Your task to perform on an android device: turn on translation in the chrome app Image 0: 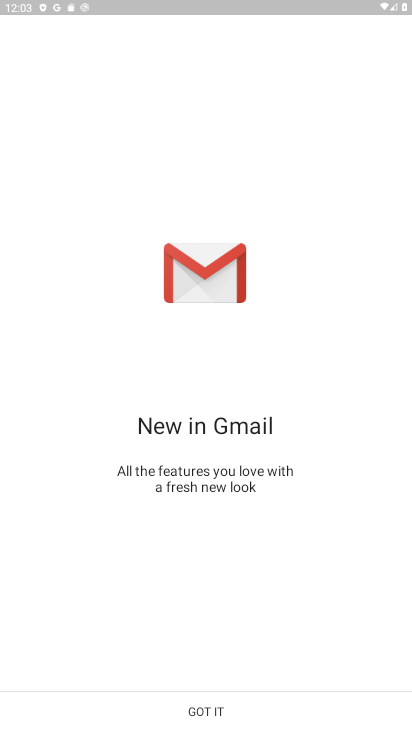
Step 0: press home button
Your task to perform on an android device: turn on translation in the chrome app Image 1: 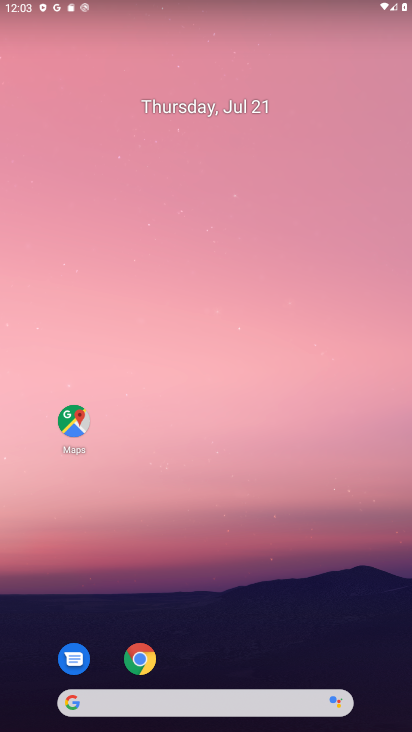
Step 1: click (136, 662)
Your task to perform on an android device: turn on translation in the chrome app Image 2: 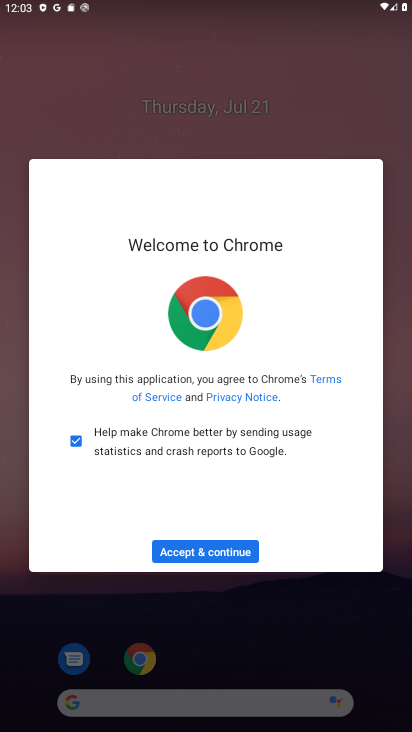
Step 2: click (226, 560)
Your task to perform on an android device: turn on translation in the chrome app Image 3: 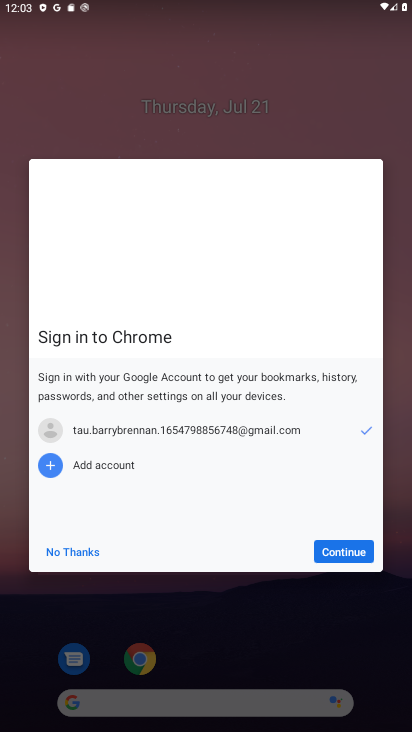
Step 3: click (328, 549)
Your task to perform on an android device: turn on translation in the chrome app Image 4: 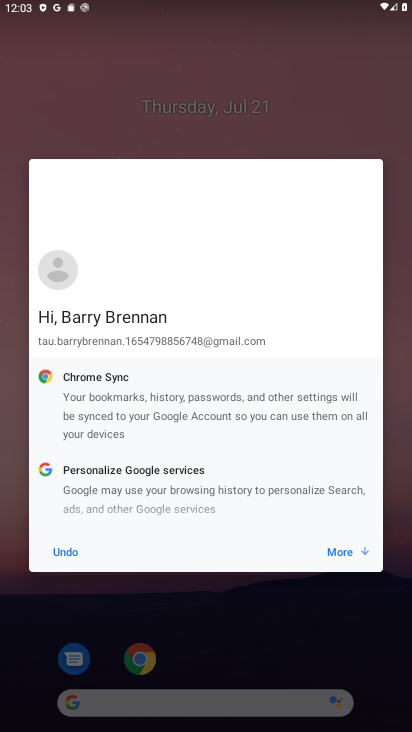
Step 4: click (328, 549)
Your task to perform on an android device: turn on translation in the chrome app Image 5: 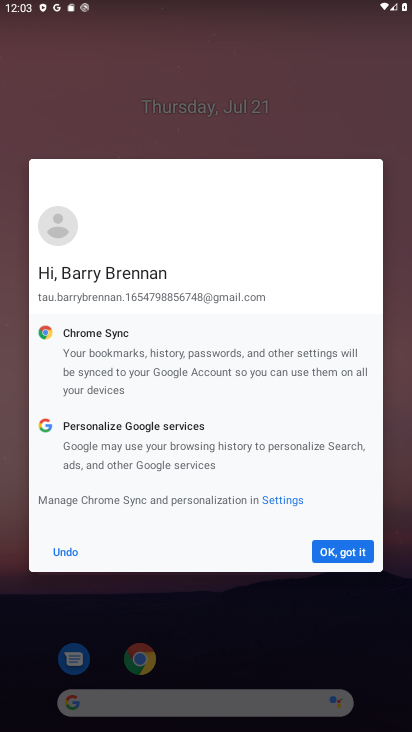
Step 5: click (328, 549)
Your task to perform on an android device: turn on translation in the chrome app Image 6: 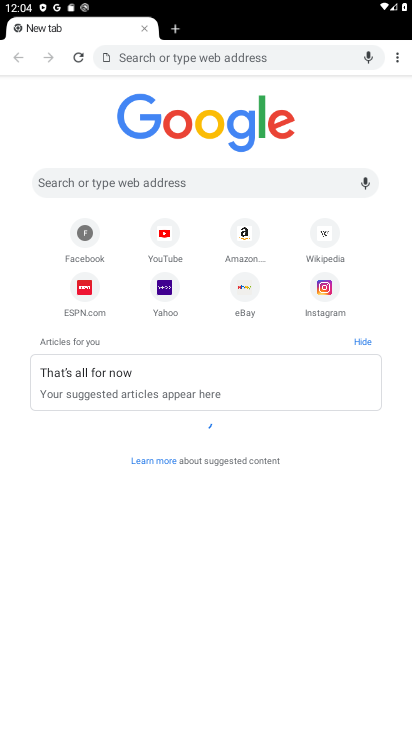
Step 6: click (402, 61)
Your task to perform on an android device: turn on translation in the chrome app Image 7: 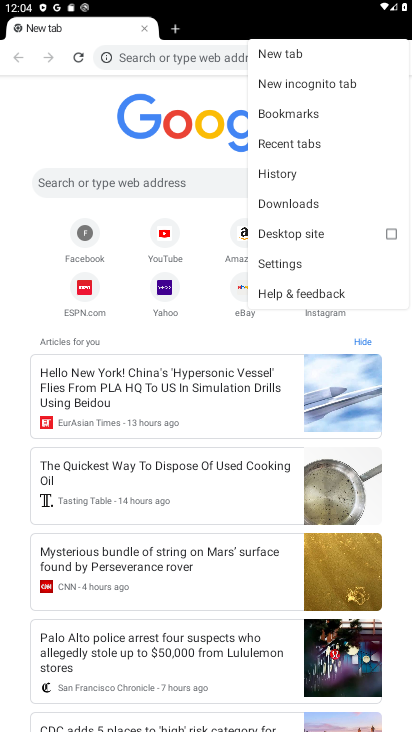
Step 7: click (306, 263)
Your task to perform on an android device: turn on translation in the chrome app Image 8: 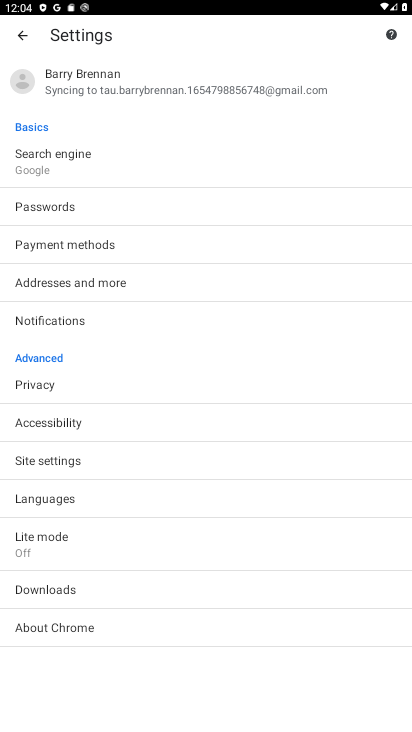
Step 8: click (196, 503)
Your task to perform on an android device: turn on translation in the chrome app Image 9: 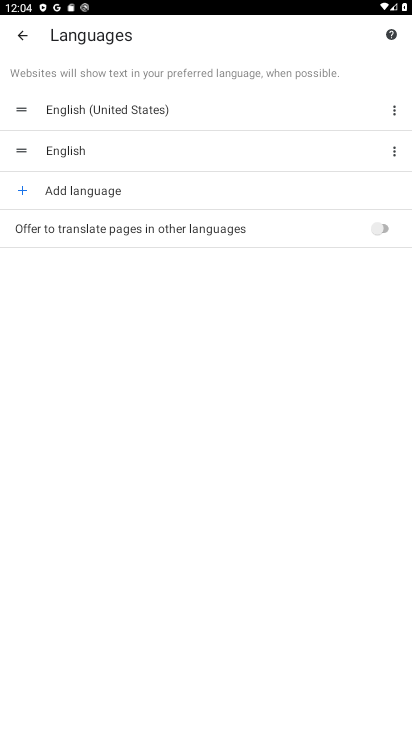
Step 9: click (332, 225)
Your task to perform on an android device: turn on translation in the chrome app Image 10: 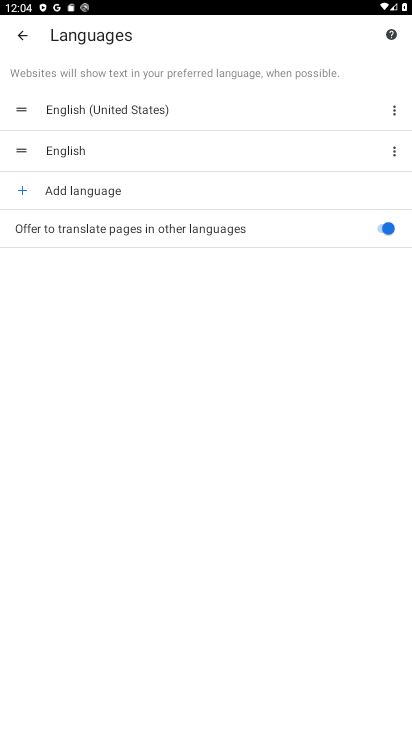
Step 10: task complete